Your task to perform on an android device: Do I have any events today? Image 0: 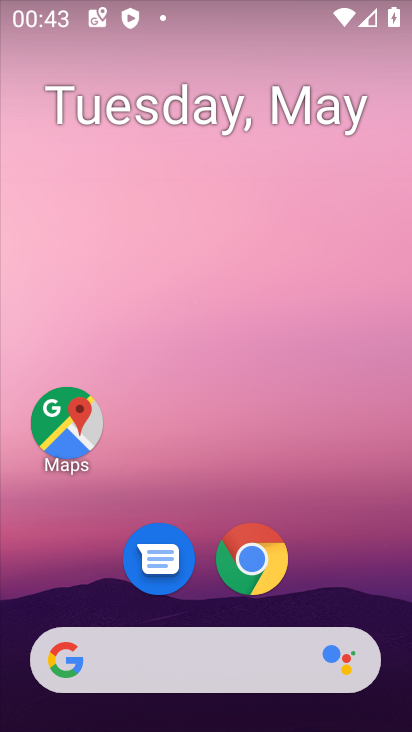
Step 0: drag from (348, 557) to (329, 48)
Your task to perform on an android device: Do I have any events today? Image 1: 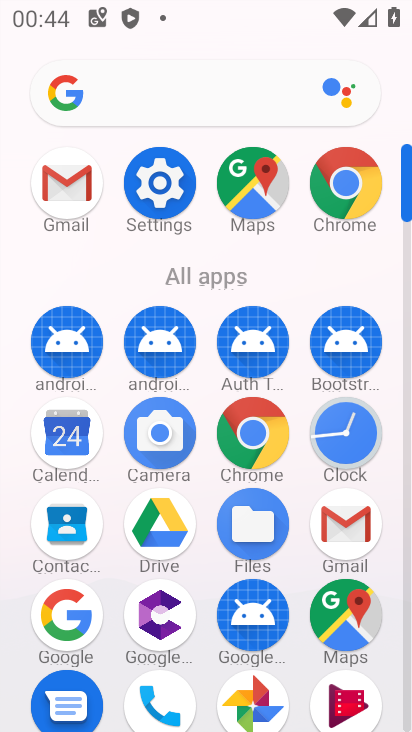
Step 1: click (65, 435)
Your task to perform on an android device: Do I have any events today? Image 2: 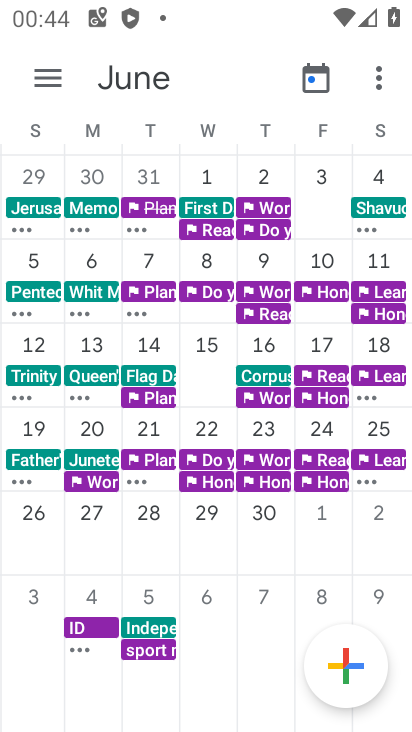
Step 2: task complete